Your task to perform on an android device: turn on location history Image 0: 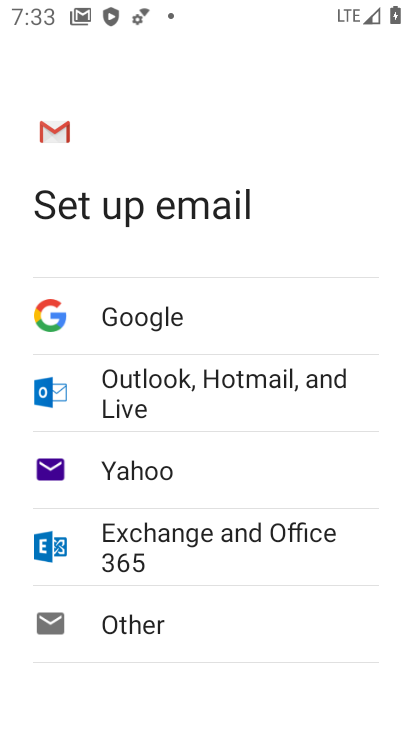
Step 0: press home button
Your task to perform on an android device: turn on location history Image 1: 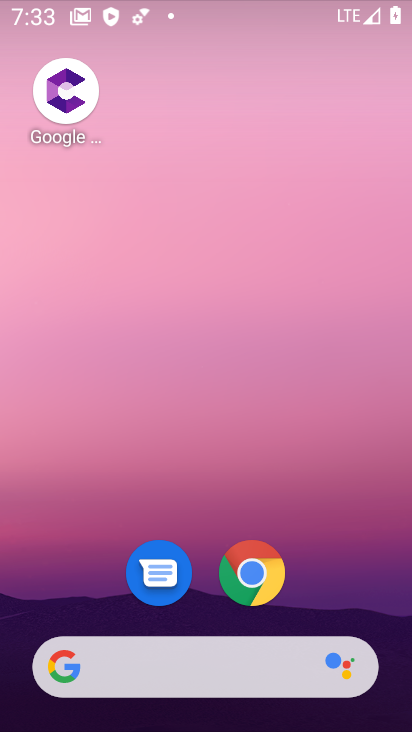
Step 1: drag from (242, 561) to (254, 34)
Your task to perform on an android device: turn on location history Image 2: 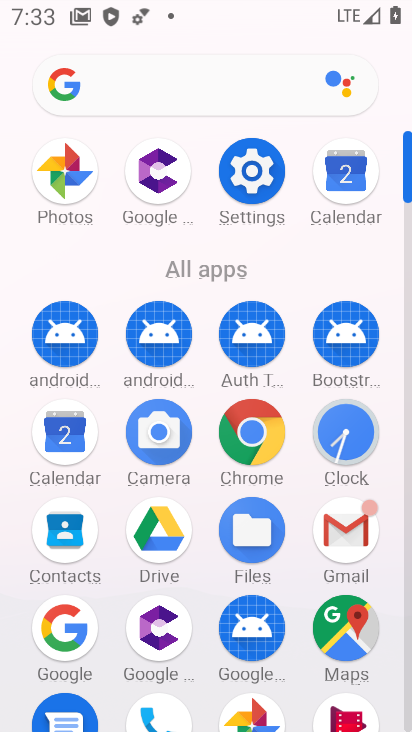
Step 2: click (267, 161)
Your task to perform on an android device: turn on location history Image 3: 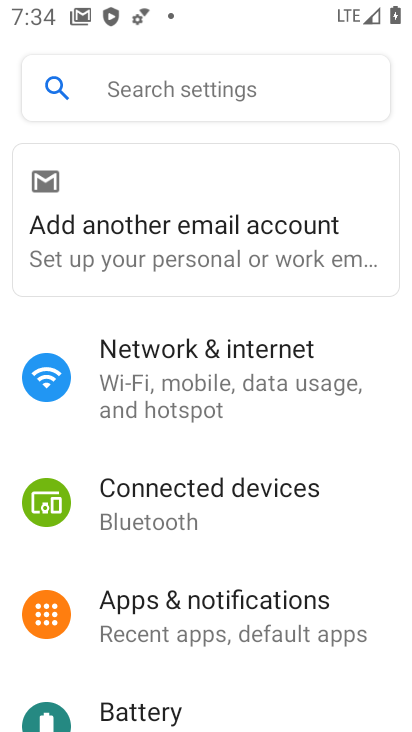
Step 3: drag from (157, 643) to (213, 286)
Your task to perform on an android device: turn on location history Image 4: 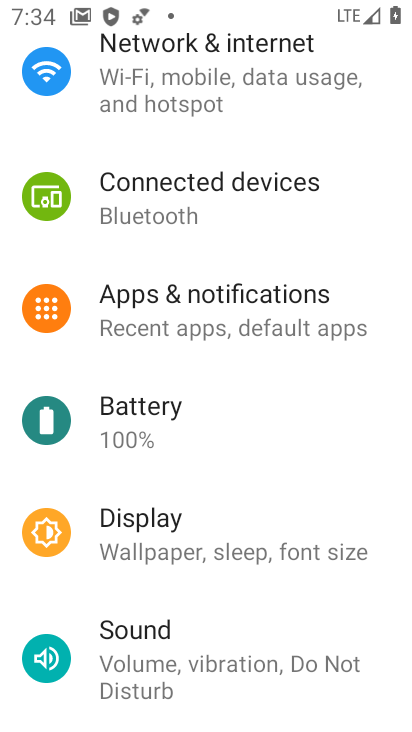
Step 4: drag from (213, 629) to (272, 229)
Your task to perform on an android device: turn on location history Image 5: 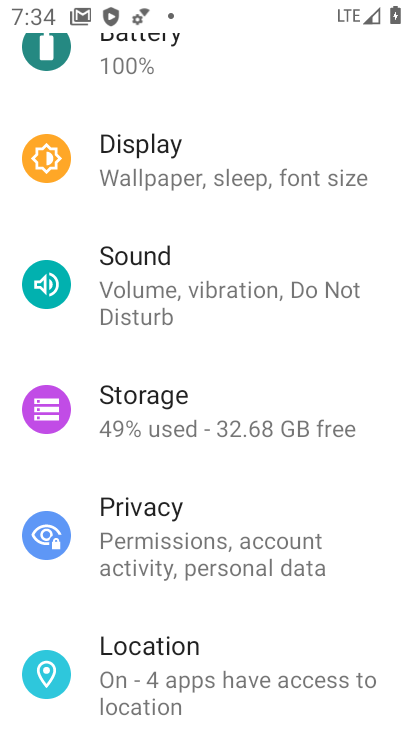
Step 5: click (189, 663)
Your task to perform on an android device: turn on location history Image 6: 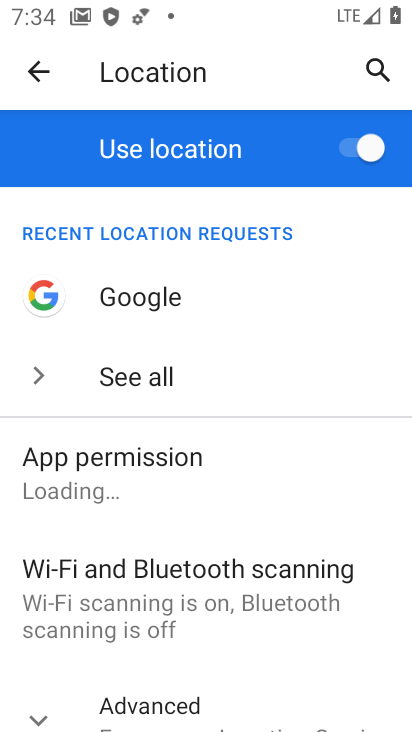
Step 6: drag from (236, 666) to (236, 286)
Your task to perform on an android device: turn on location history Image 7: 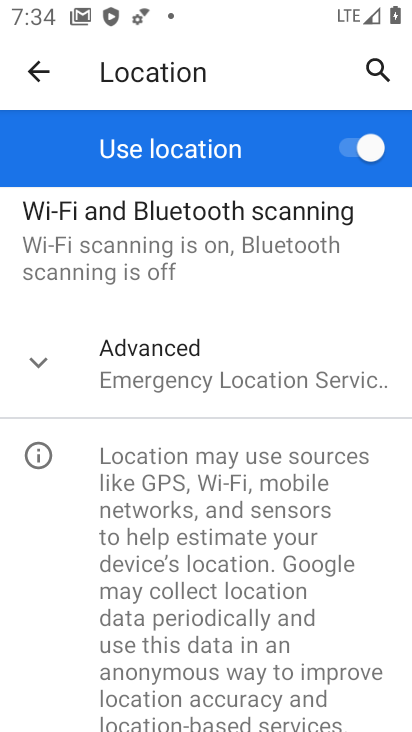
Step 7: click (224, 373)
Your task to perform on an android device: turn on location history Image 8: 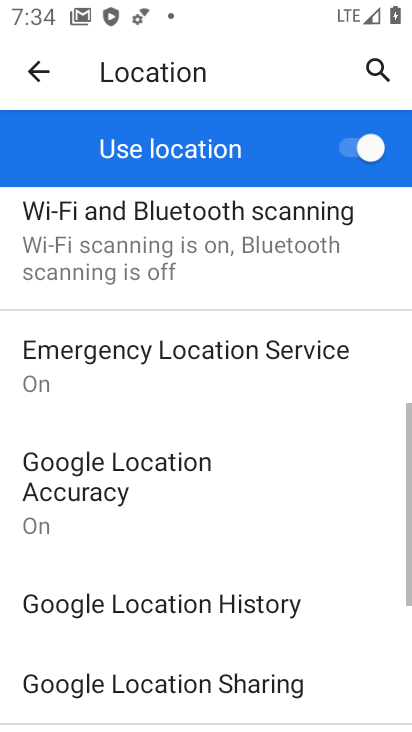
Step 8: click (167, 615)
Your task to perform on an android device: turn on location history Image 9: 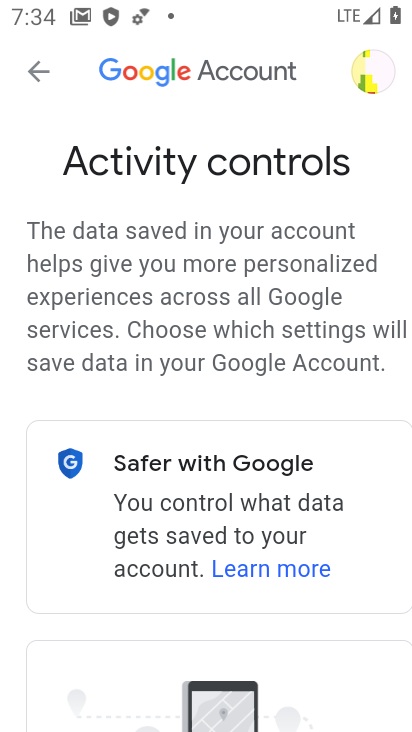
Step 9: drag from (244, 654) to (260, 244)
Your task to perform on an android device: turn on location history Image 10: 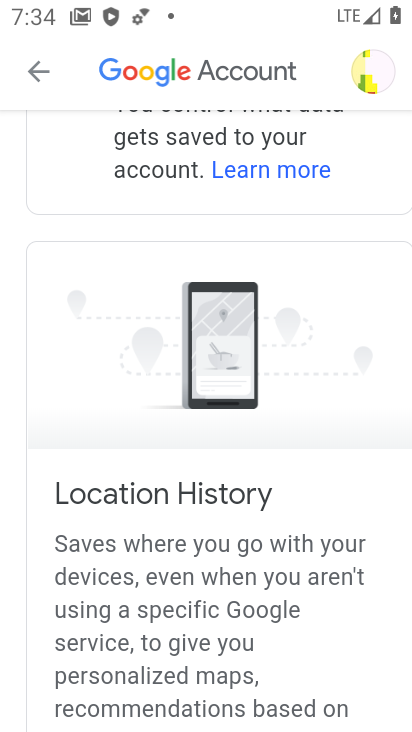
Step 10: drag from (302, 655) to (303, 291)
Your task to perform on an android device: turn on location history Image 11: 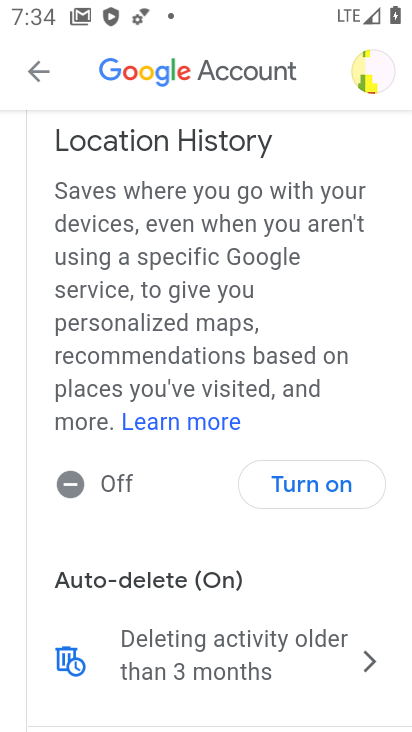
Step 11: click (288, 485)
Your task to perform on an android device: turn on location history Image 12: 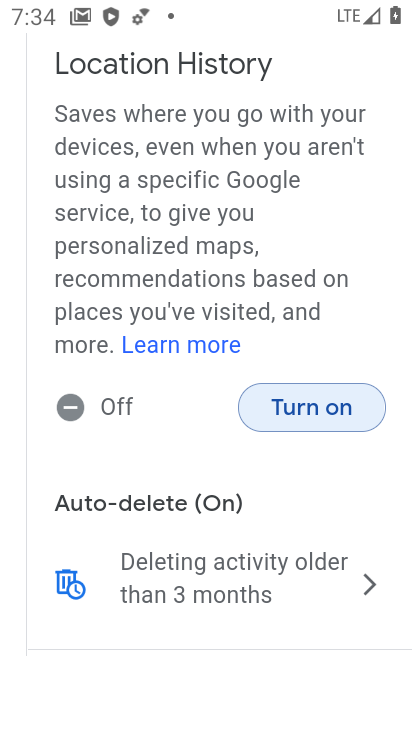
Step 12: task complete